Your task to perform on an android device: Open Google Chrome and click the shortcut for Amazon.com Image 0: 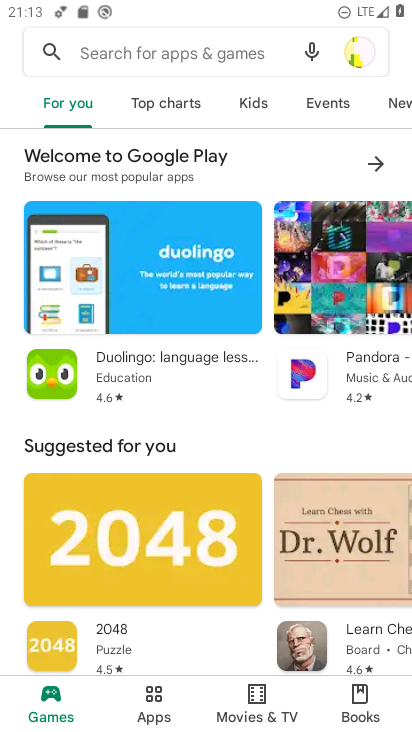
Step 0: press home button
Your task to perform on an android device: Open Google Chrome and click the shortcut for Amazon.com Image 1: 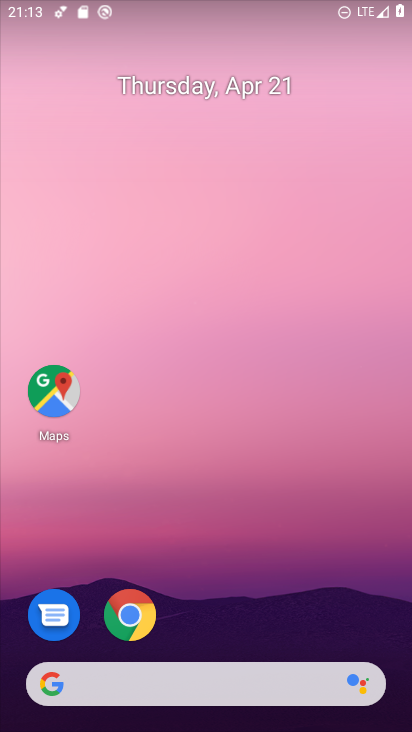
Step 1: click (131, 613)
Your task to perform on an android device: Open Google Chrome and click the shortcut for Amazon.com Image 2: 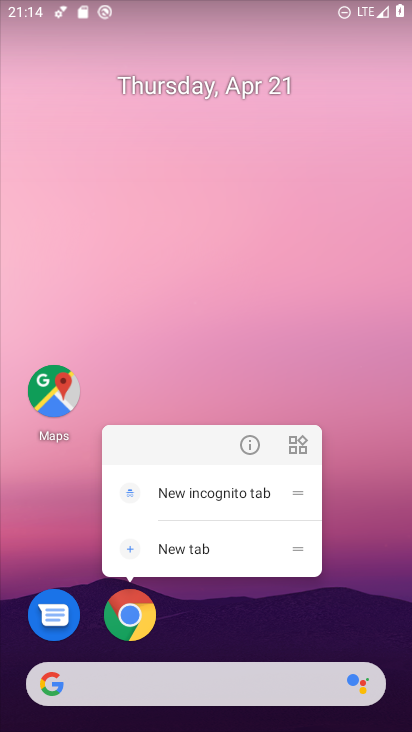
Step 2: click (253, 442)
Your task to perform on an android device: Open Google Chrome and click the shortcut for Amazon.com Image 3: 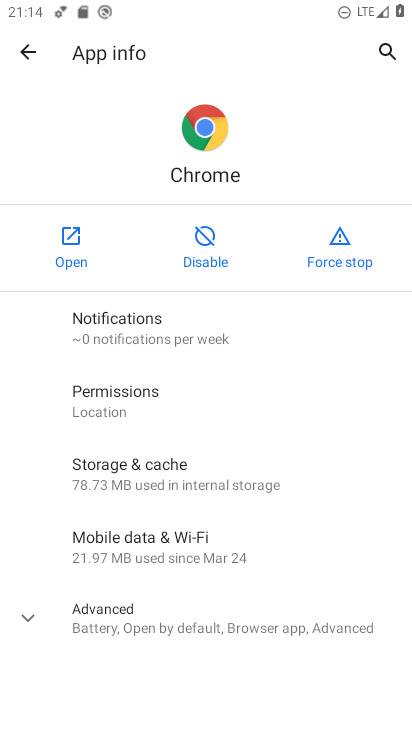
Step 3: click (67, 248)
Your task to perform on an android device: Open Google Chrome and click the shortcut for Amazon.com Image 4: 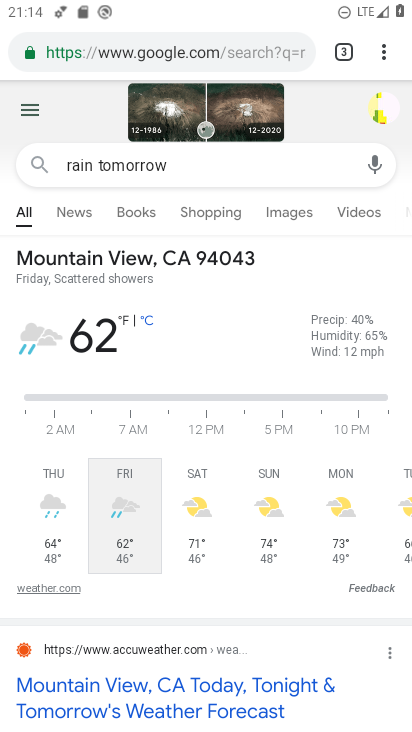
Step 4: click (358, 44)
Your task to perform on an android device: Open Google Chrome and click the shortcut for Amazon.com Image 5: 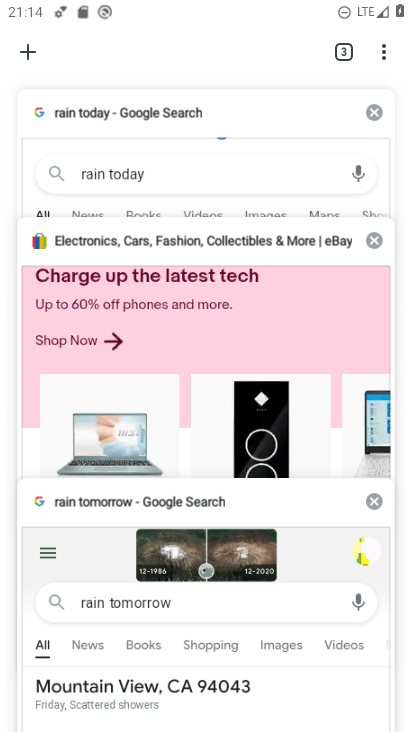
Step 5: click (376, 239)
Your task to perform on an android device: Open Google Chrome and click the shortcut for Amazon.com Image 6: 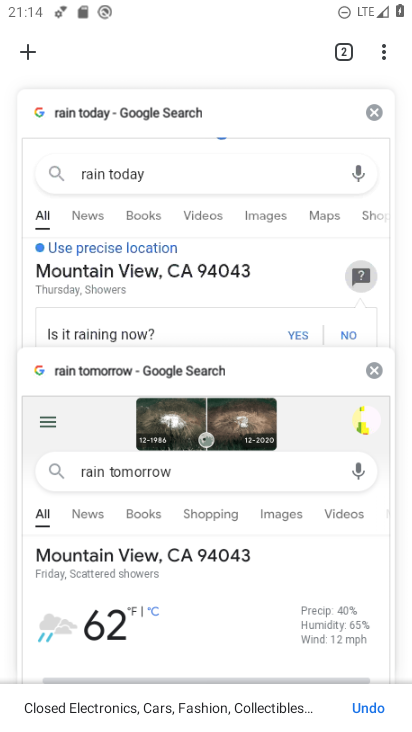
Step 6: click (375, 106)
Your task to perform on an android device: Open Google Chrome and click the shortcut for Amazon.com Image 7: 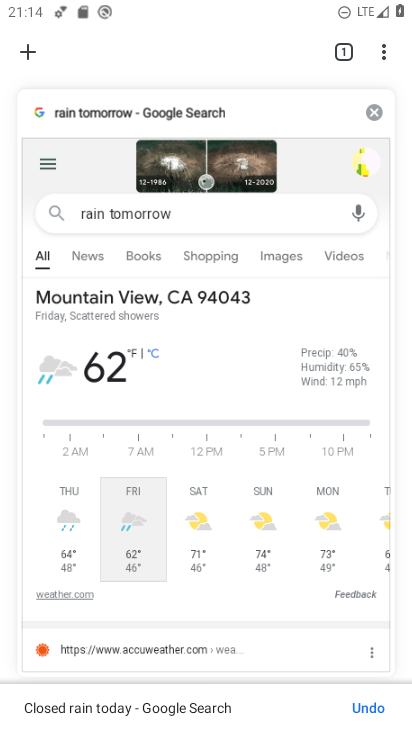
Step 7: click (374, 106)
Your task to perform on an android device: Open Google Chrome and click the shortcut for Amazon.com Image 8: 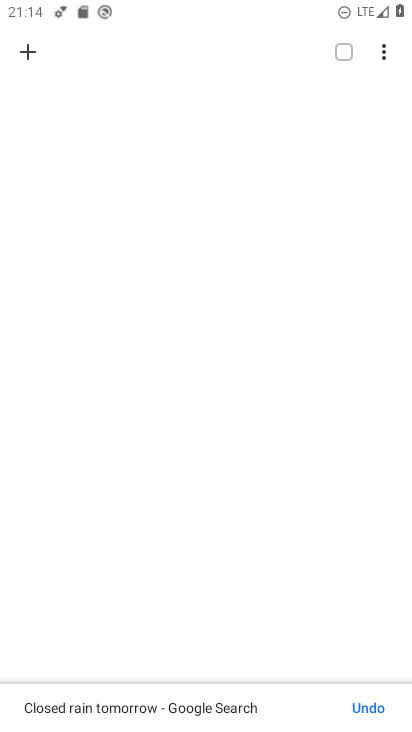
Step 8: click (26, 55)
Your task to perform on an android device: Open Google Chrome and click the shortcut for Amazon.com Image 9: 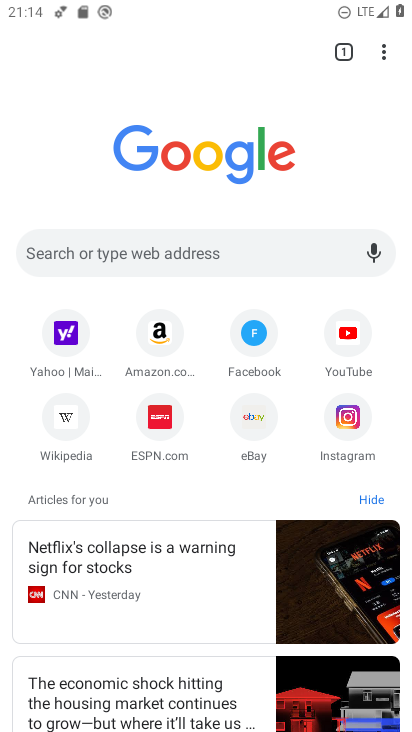
Step 9: click (162, 330)
Your task to perform on an android device: Open Google Chrome and click the shortcut for Amazon.com Image 10: 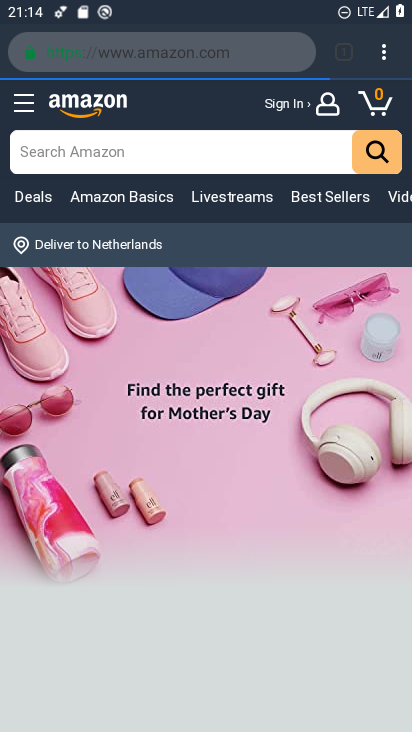
Step 10: task complete